Your task to perform on an android device: Go to Wikipedia Image 0: 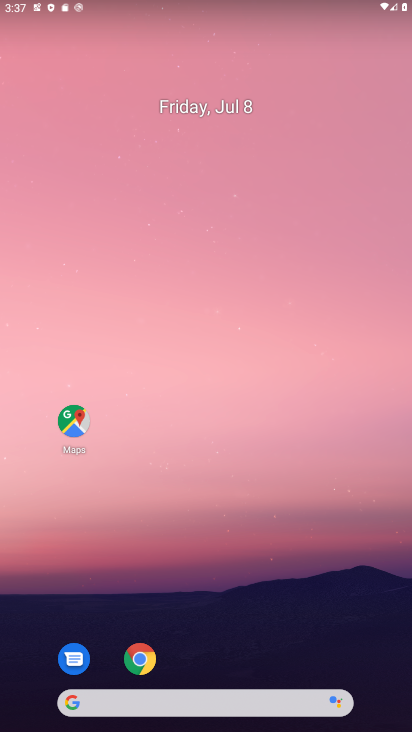
Step 0: click (137, 665)
Your task to perform on an android device: Go to Wikipedia Image 1: 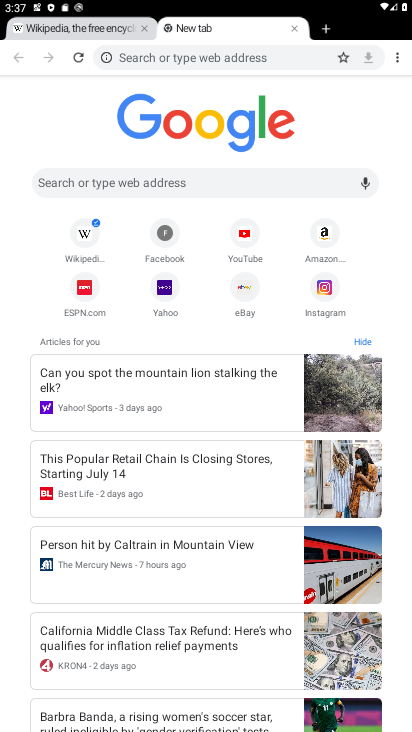
Step 1: click (88, 231)
Your task to perform on an android device: Go to Wikipedia Image 2: 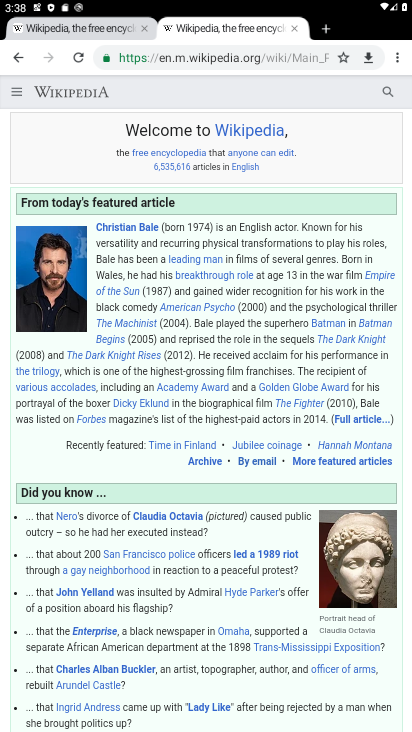
Step 2: task complete